Your task to perform on an android device: Go to Google maps Image 0: 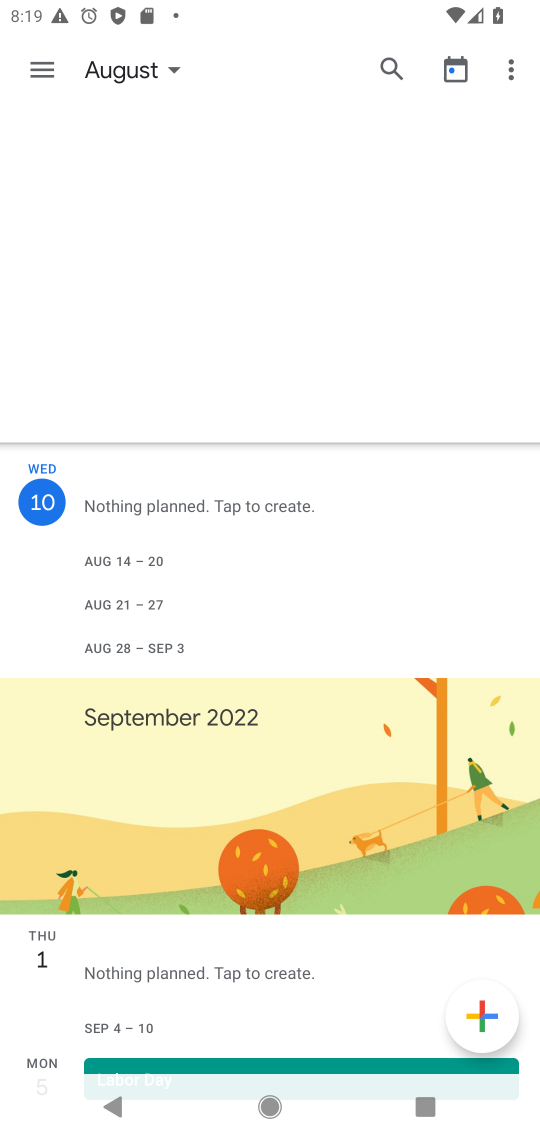
Step 0: press home button
Your task to perform on an android device: Go to Google maps Image 1: 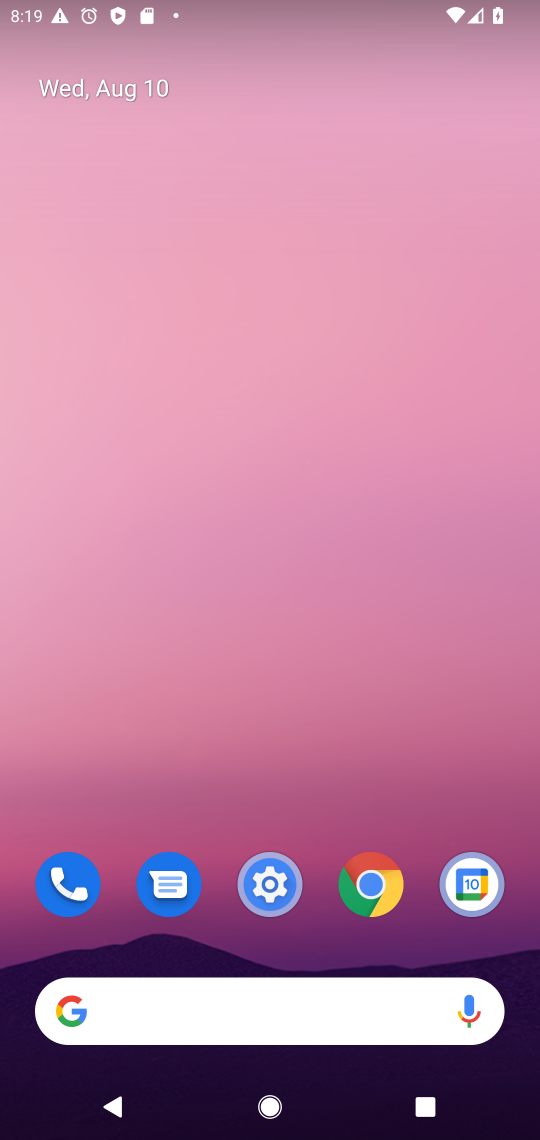
Step 1: drag from (37, 1070) to (259, 355)
Your task to perform on an android device: Go to Google maps Image 2: 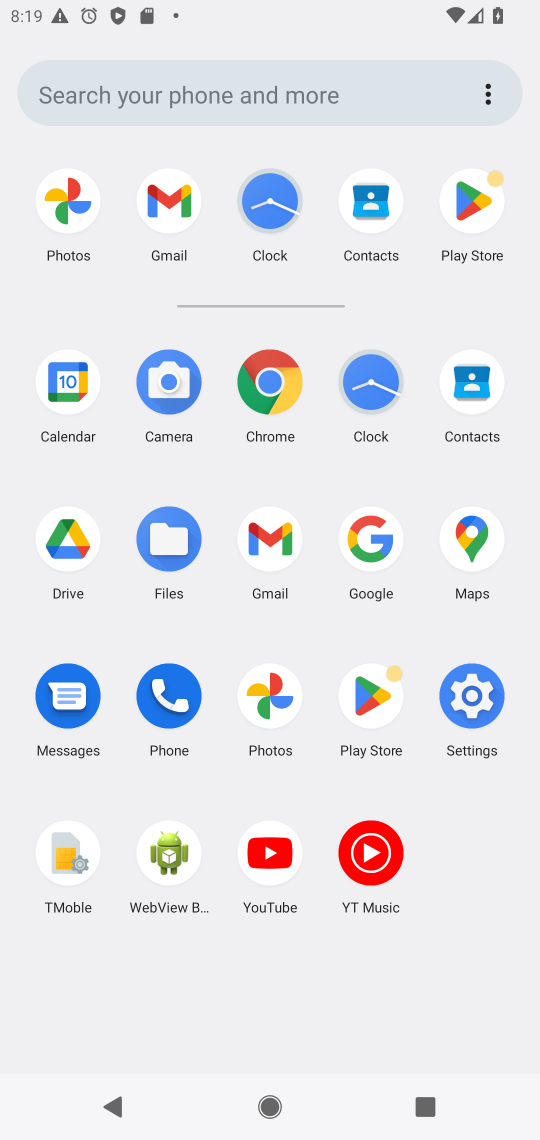
Step 2: click (489, 533)
Your task to perform on an android device: Go to Google maps Image 3: 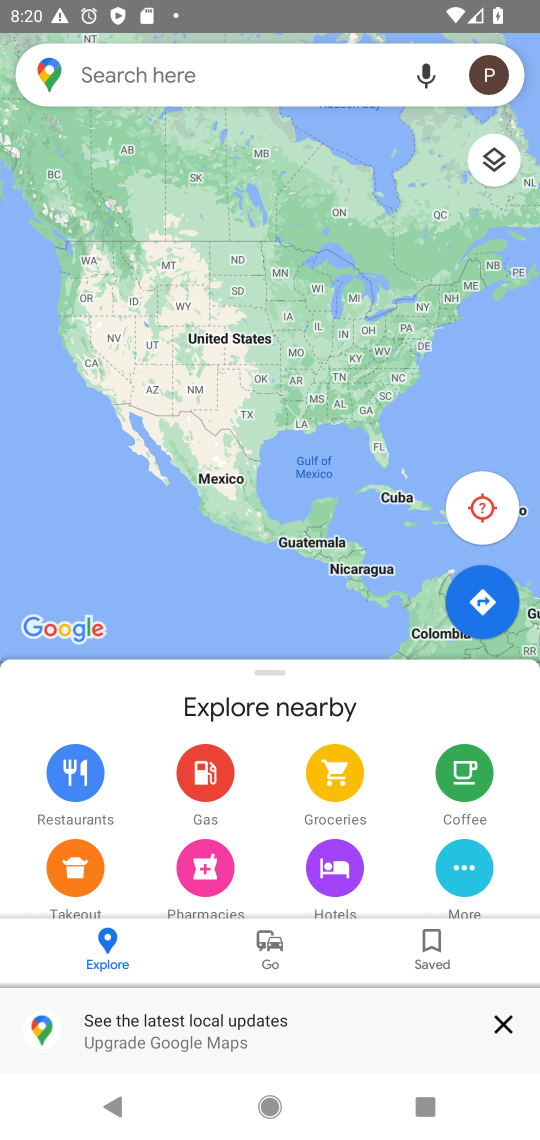
Step 3: task complete